Your task to perform on an android device: Open Chrome and go to settings Image 0: 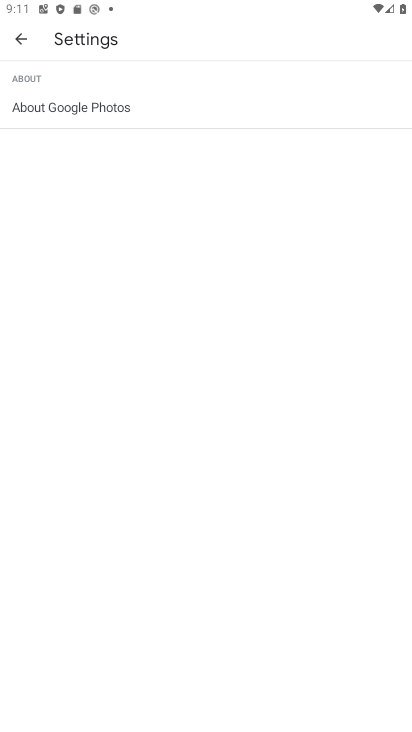
Step 0: press home button
Your task to perform on an android device: Open Chrome and go to settings Image 1: 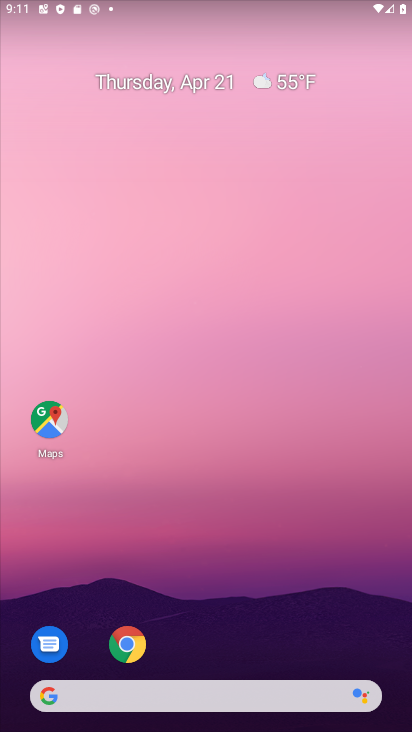
Step 1: drag from (272, 610) to (231, 202)
Your task to perform on an android device: Open Chrome and go to settings Image 2: 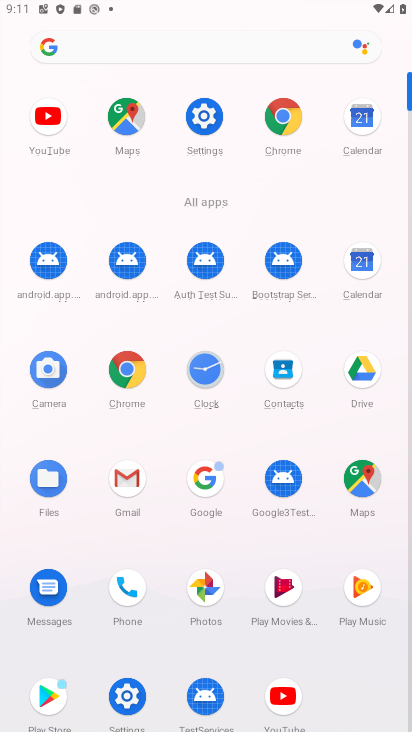
Step 2: click (133, 385)
Your task to perform on an android device: Open Chrome and go to settings Image 3: 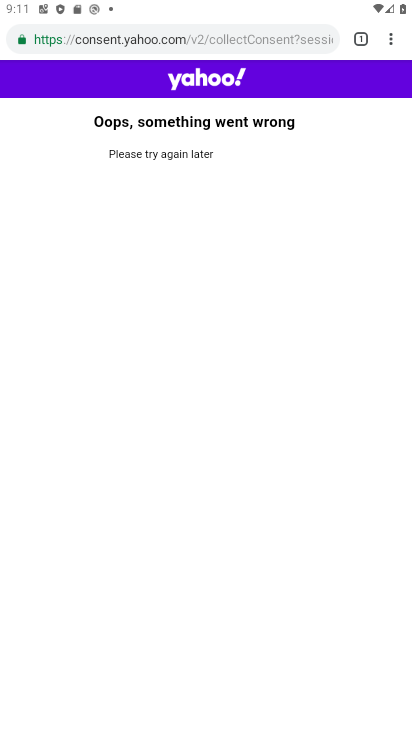
Step 3: task complete